Your task to perform on an android device: Go to Wikipedia Image 0: 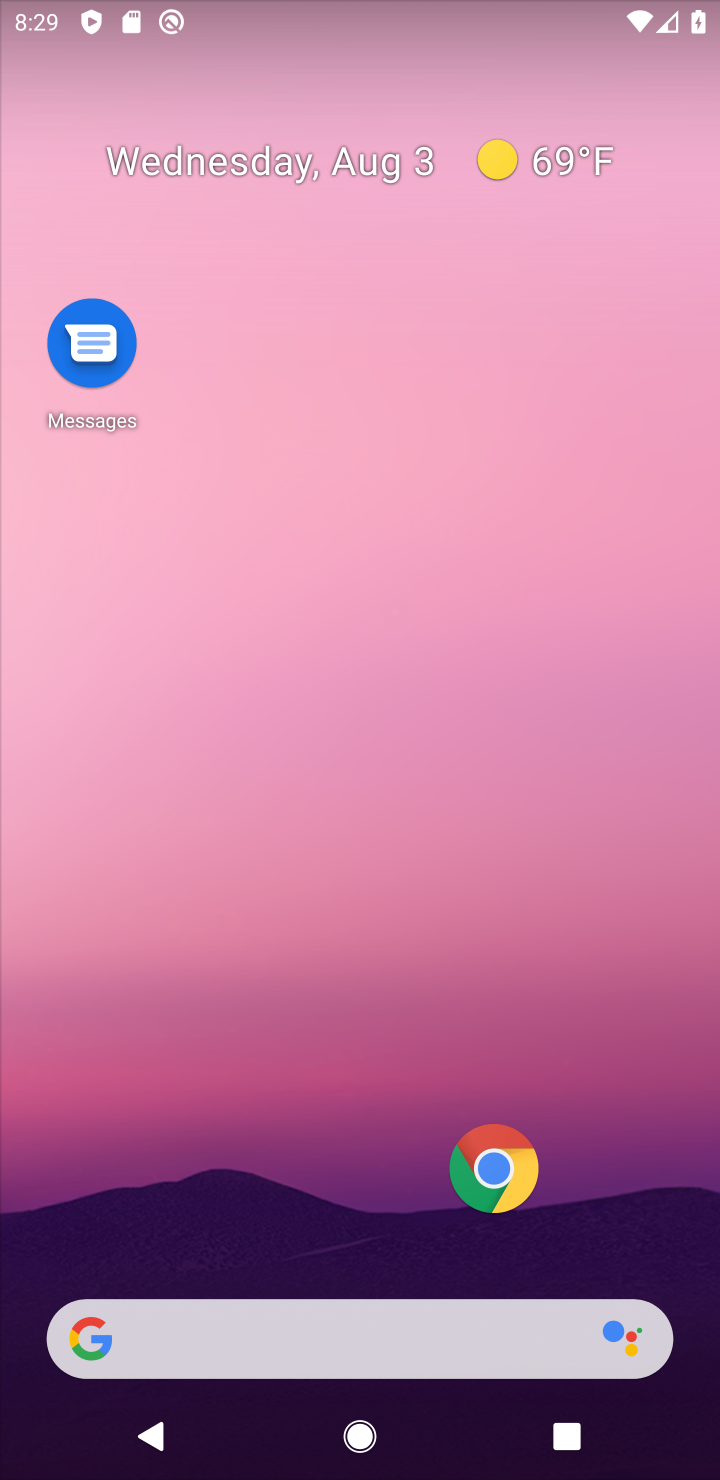
Step 0: click (499, 1212)
Your task to perform on an android device: Go to Wikipedia Image 1: 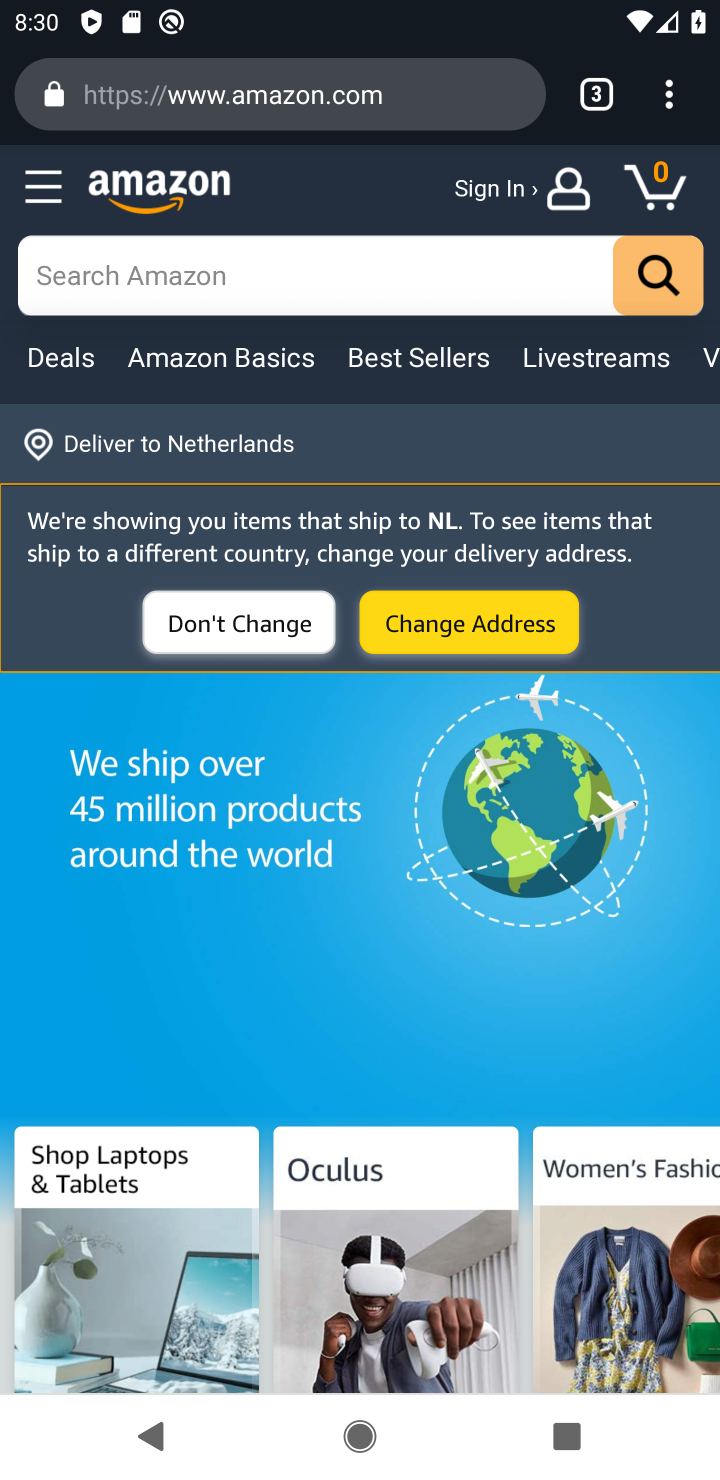
Step 1: click (593, 99)
Your task to perform on an android device: Go to Wikipedia Image 2: 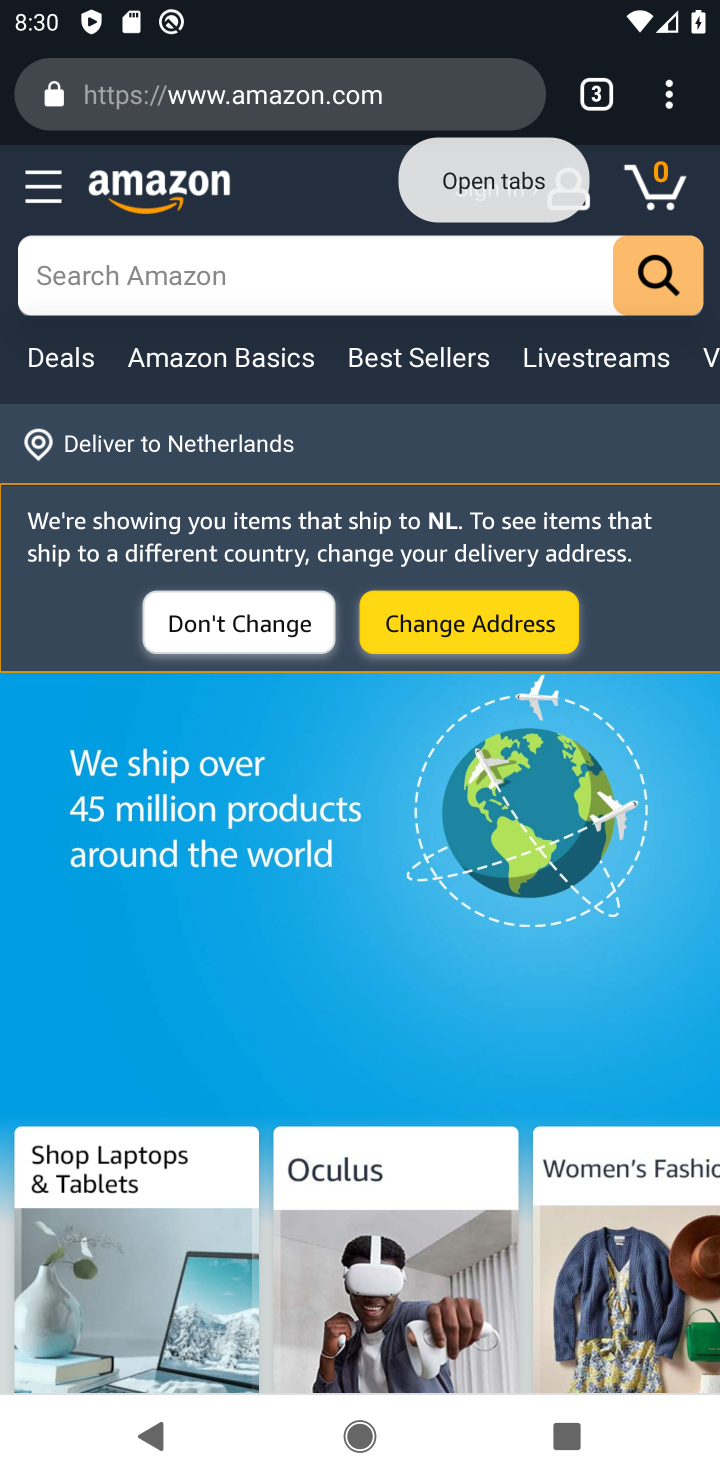
Step 2: click (595, 97)
Your task to perform on an android device: Go to Wikipedia Image 3: 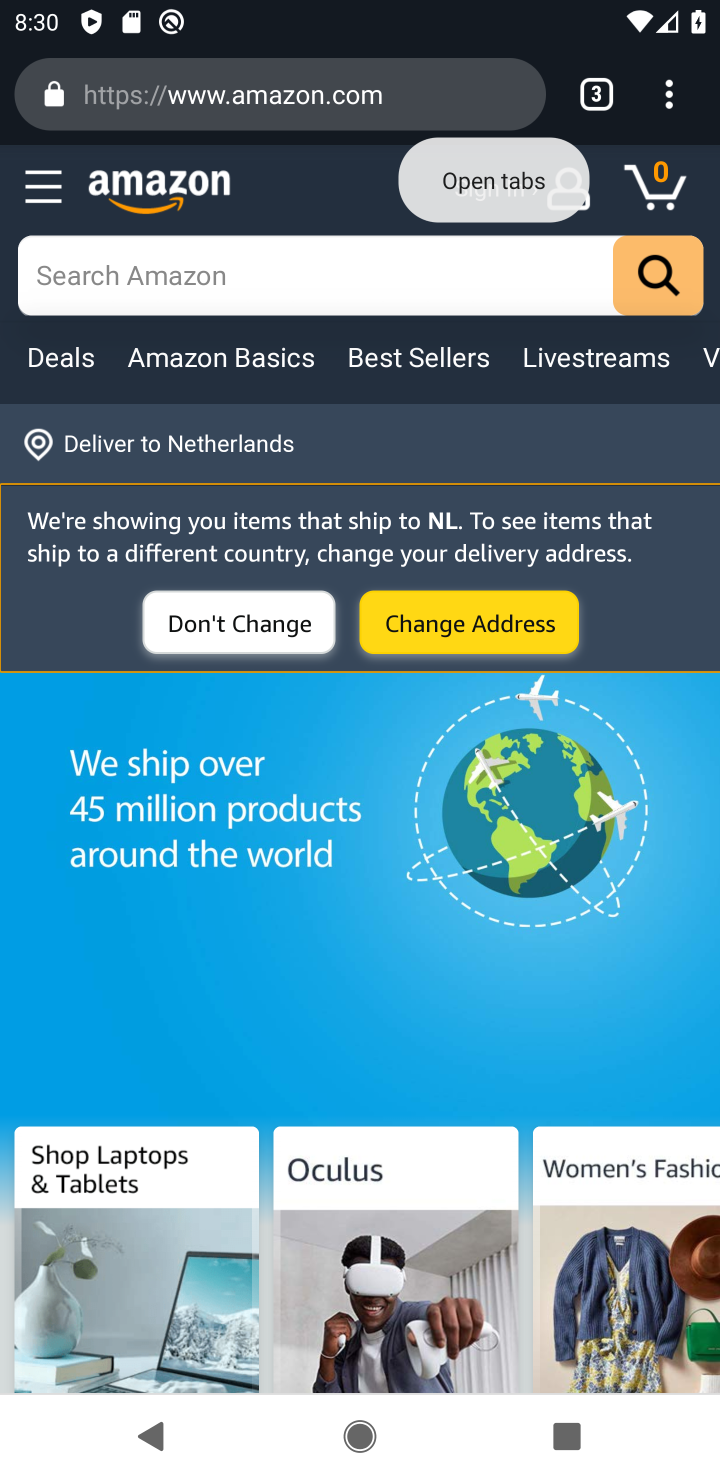
Step 3: click (595, 99)
Your task to perform on an android device: Go to Wikipedia Image 4: 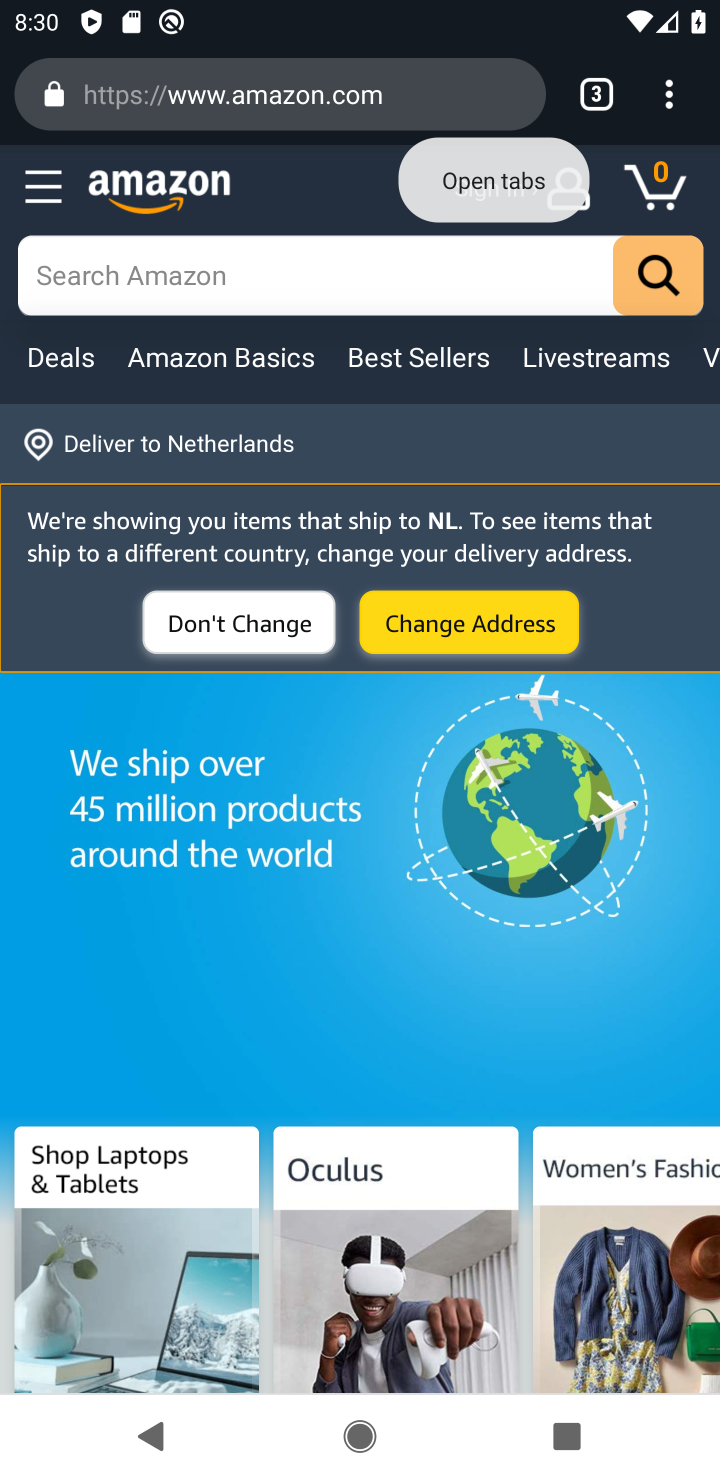
Step 4: click (668, 84)
Your task to perform on an android device: Go to Wikipedia Image 5: 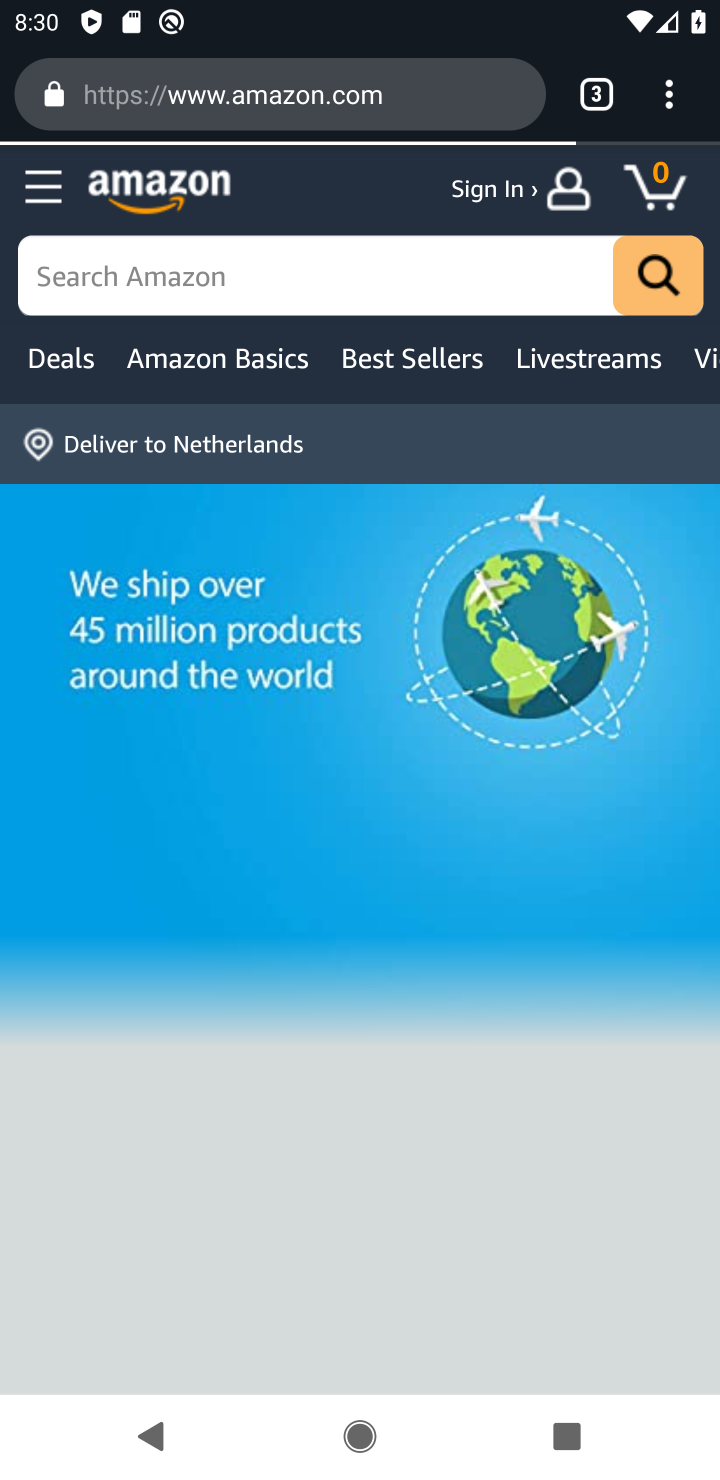
Step 5: drag from (660, 99) to (397, 194)
Your task to perform on an android device: Go to Wikipedia Image 6: 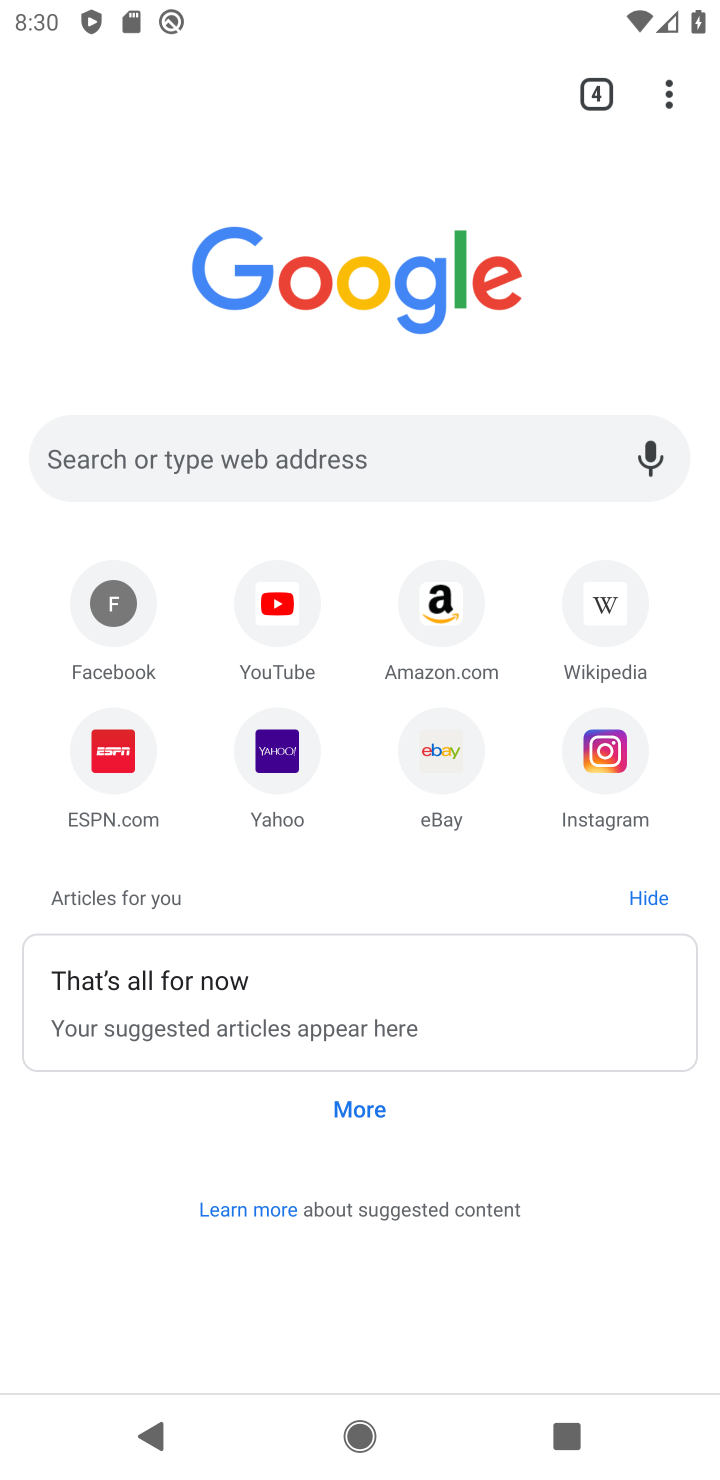
Step 6: click (624, 615)
Your task to perform on an android device: Go to Wikipedia Image 7: 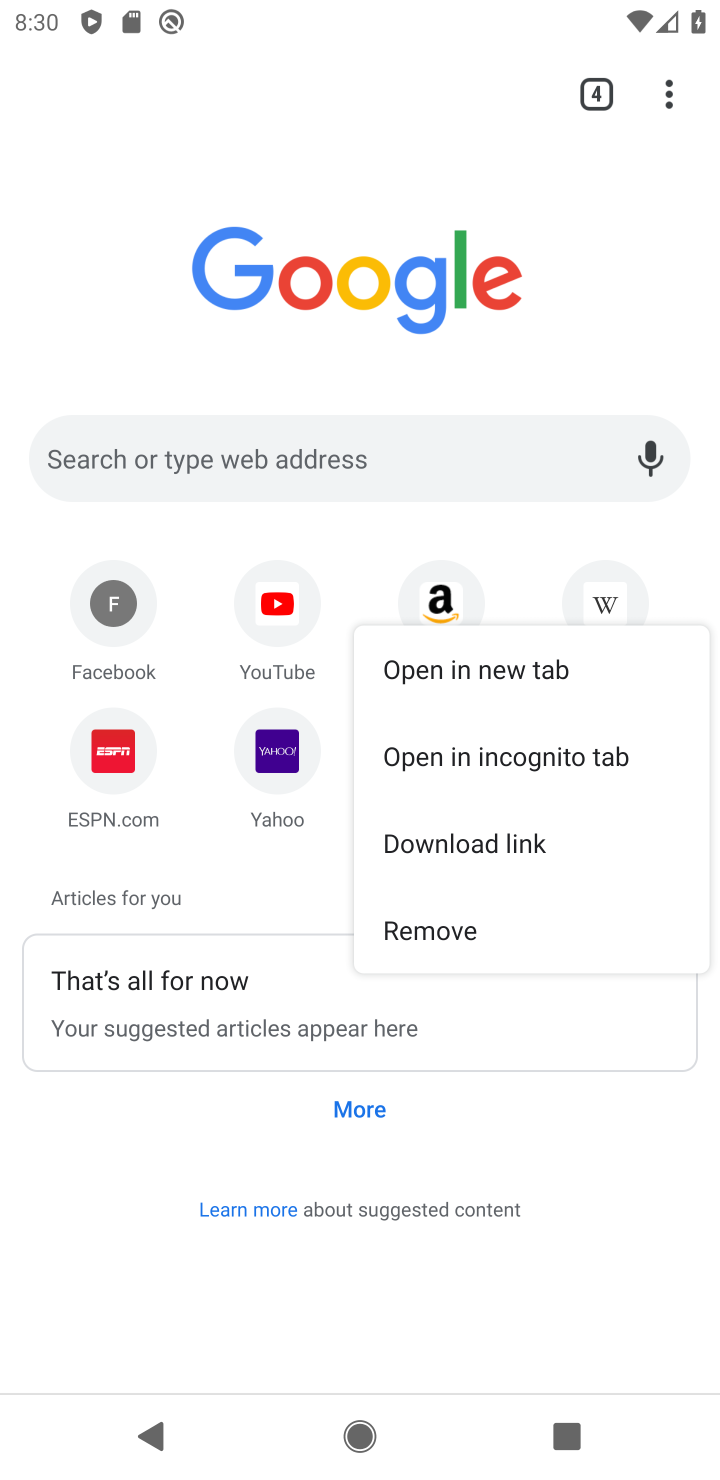
Step 7: click (607, 601)
Your task to perform on an android device: Go to Wikipedia Image 8: 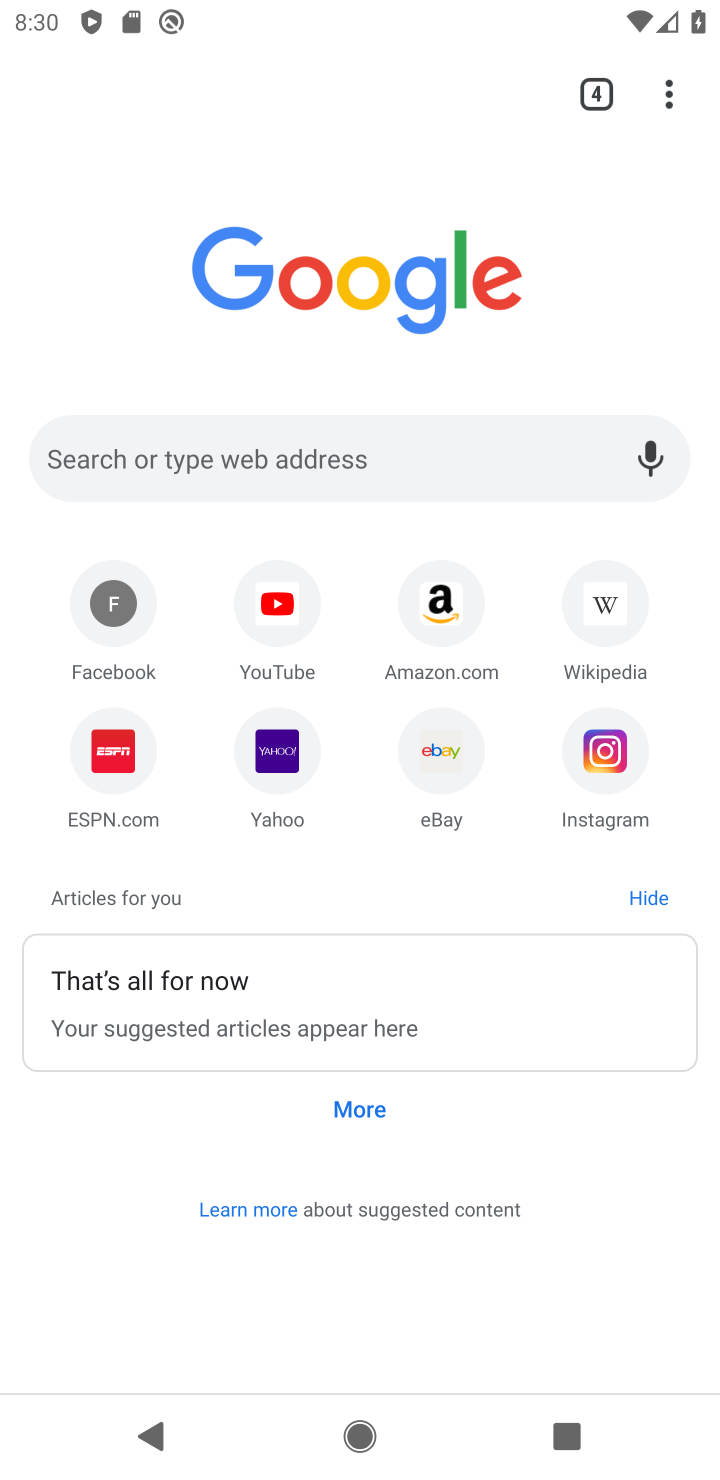
Step 8: click (607, 601)
Your task to perform on an android device: Go to Wikipedia Image 9: 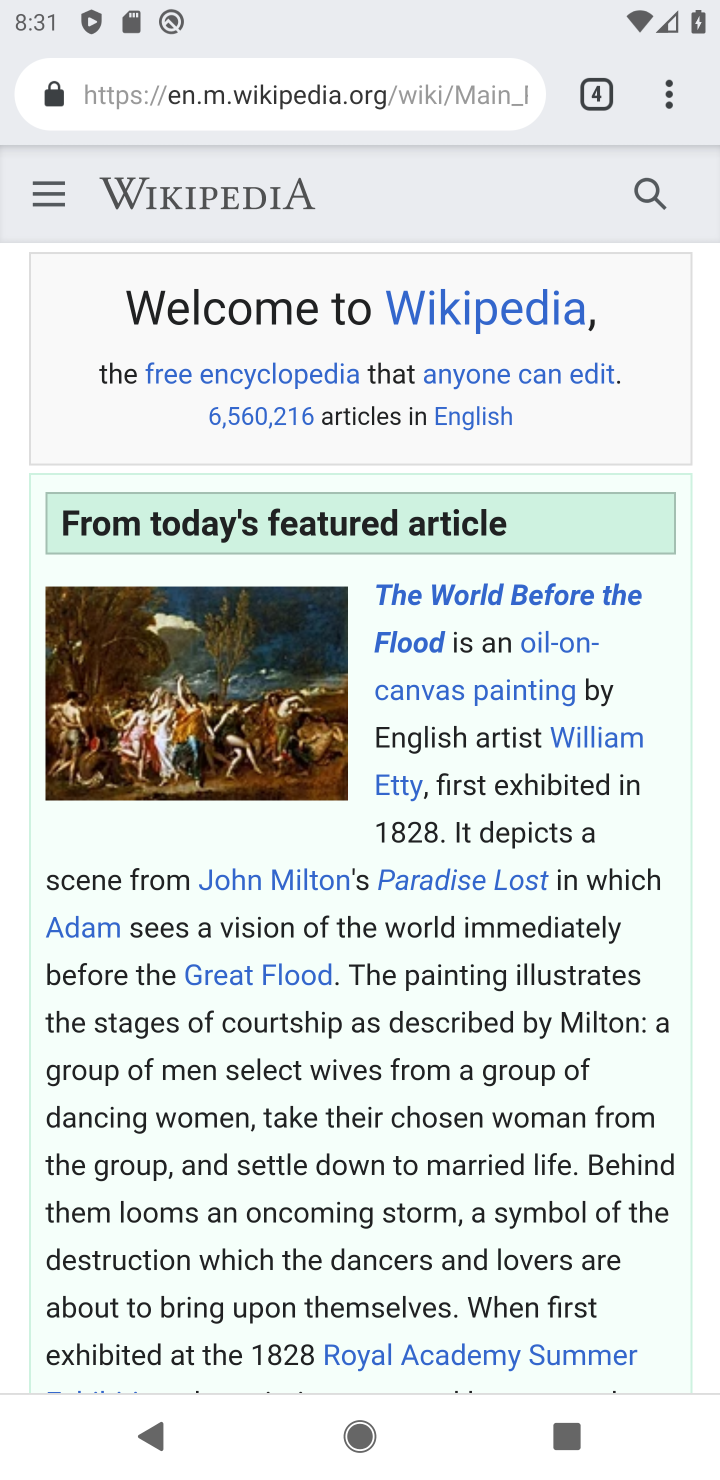
Step 9: task complete